Your task to perform on an android device: Go to location settings Image 0: 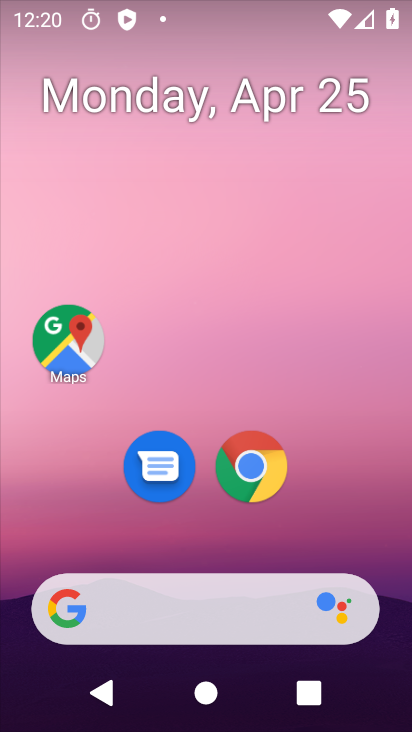
Step 0: drag from (230, 236) to (228, 0)
Your task to perform on an android device: Go to location settings Image 1: 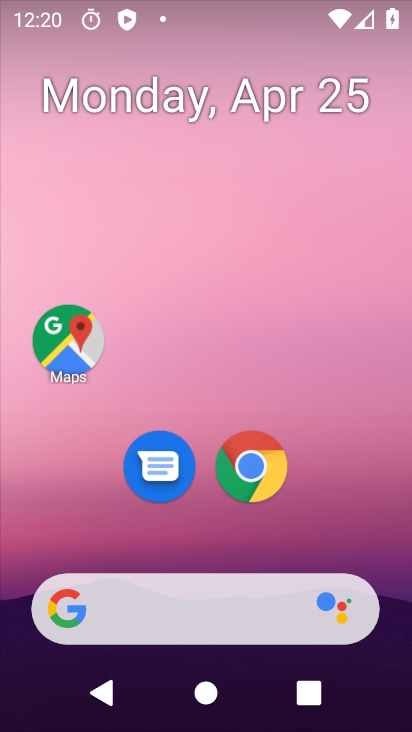
Step 1: drag from (216, 554) to (208, 0)
Your task to perform on an android device: Go to location settings Image 2: 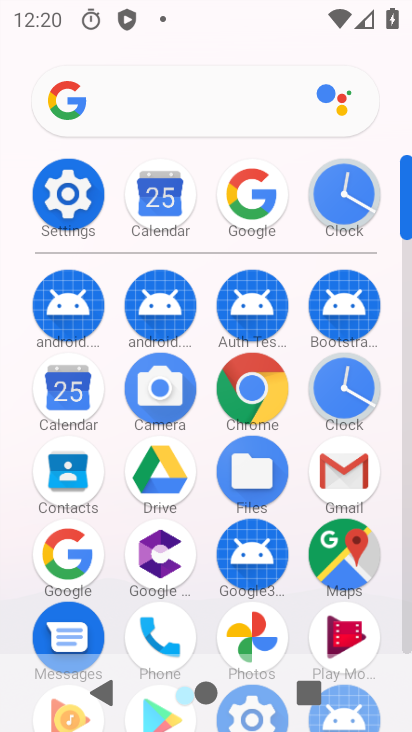
Step 2: click (64, 214)
Your task to perform on an android device: Go to location settings Image 3: 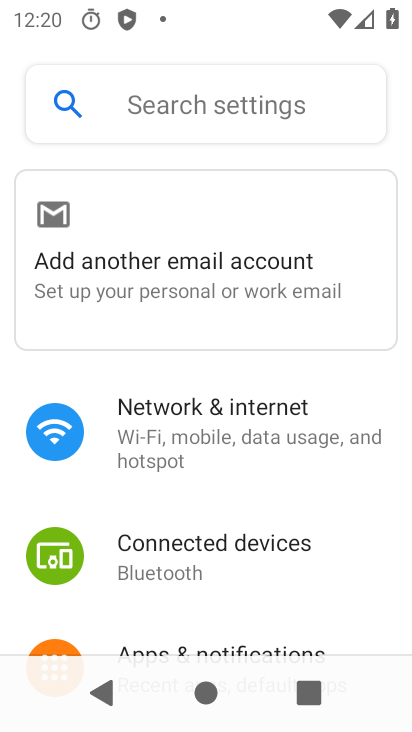
Step 3: drag from (264, 603) to (341, 408)
Your task to perform on an android device: Go to location settings Image 4: 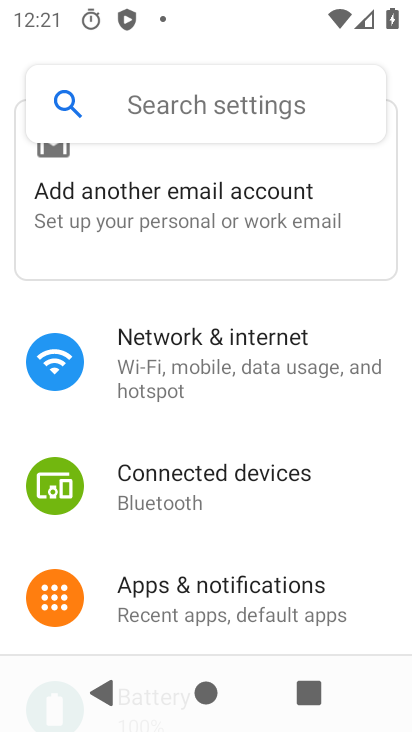
Step 4: drag from (233, 566) to (298, 115)
Your task to perform on an android device: Go to location settings Image 5: 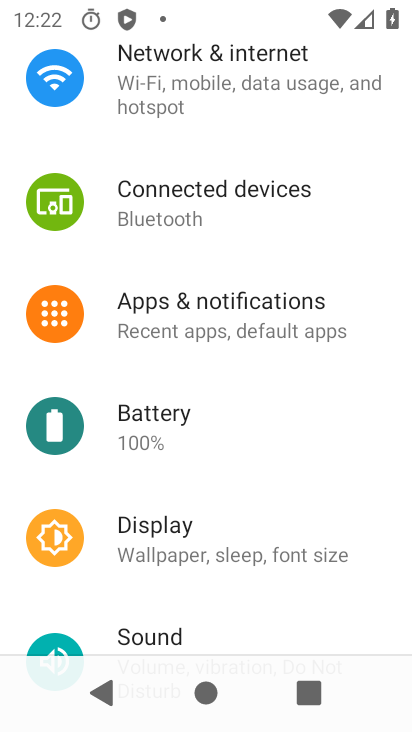
Step 5: drag from (162, 567) to (219, 144)
Your task to perform on an android device: Go to location settings Image 6: 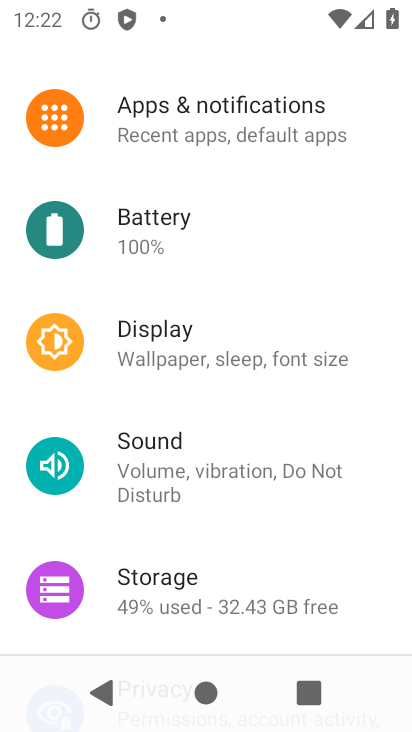
Step 6: drag from (227, 588) to (269, 180)
Your task to perform on an android device: Go to location settings Image 7: 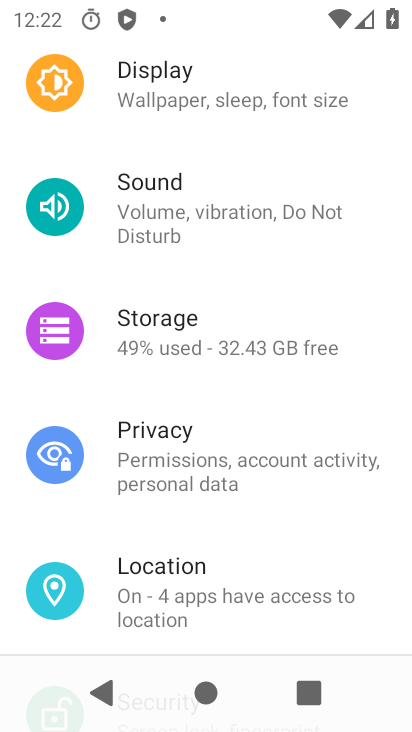
Step 7: click (187, 565)
Your task to perform on an android device: Go to location settings Image 8: 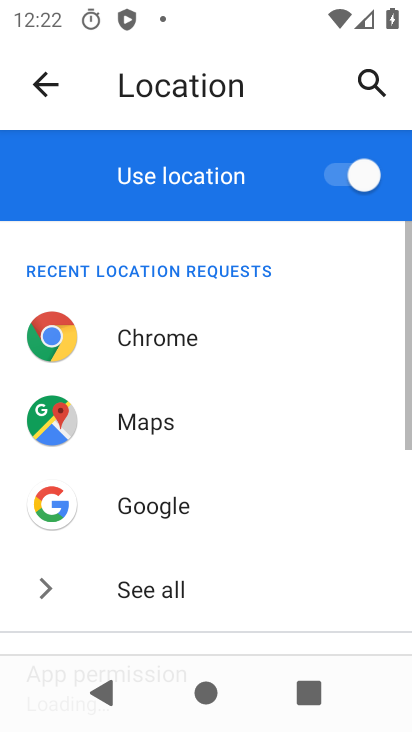
Step 8: task complete